Your task to perform on an android device: turn off data saver in the chrome app Image 0: 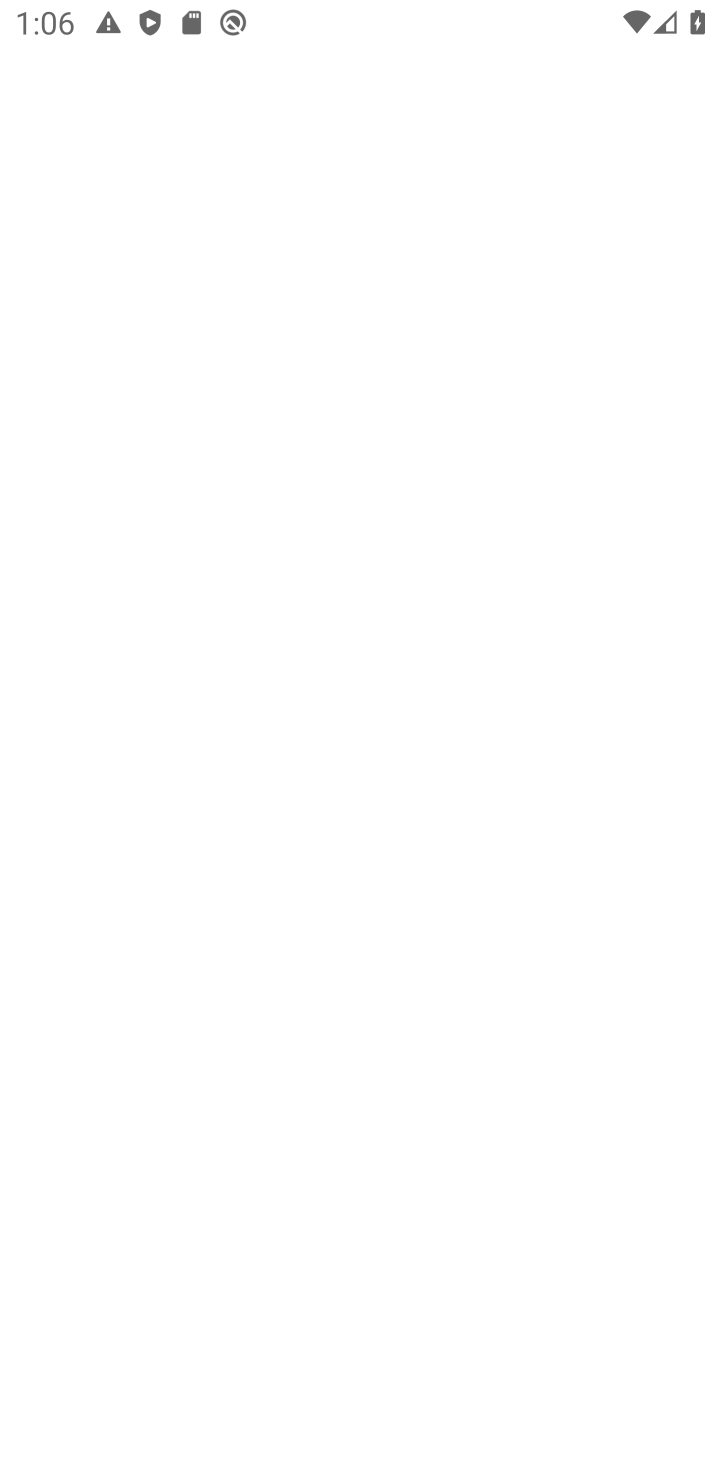
Step 0: task complete